Your task to perform on an android device: Check the latest toasters on Target. Image 0: 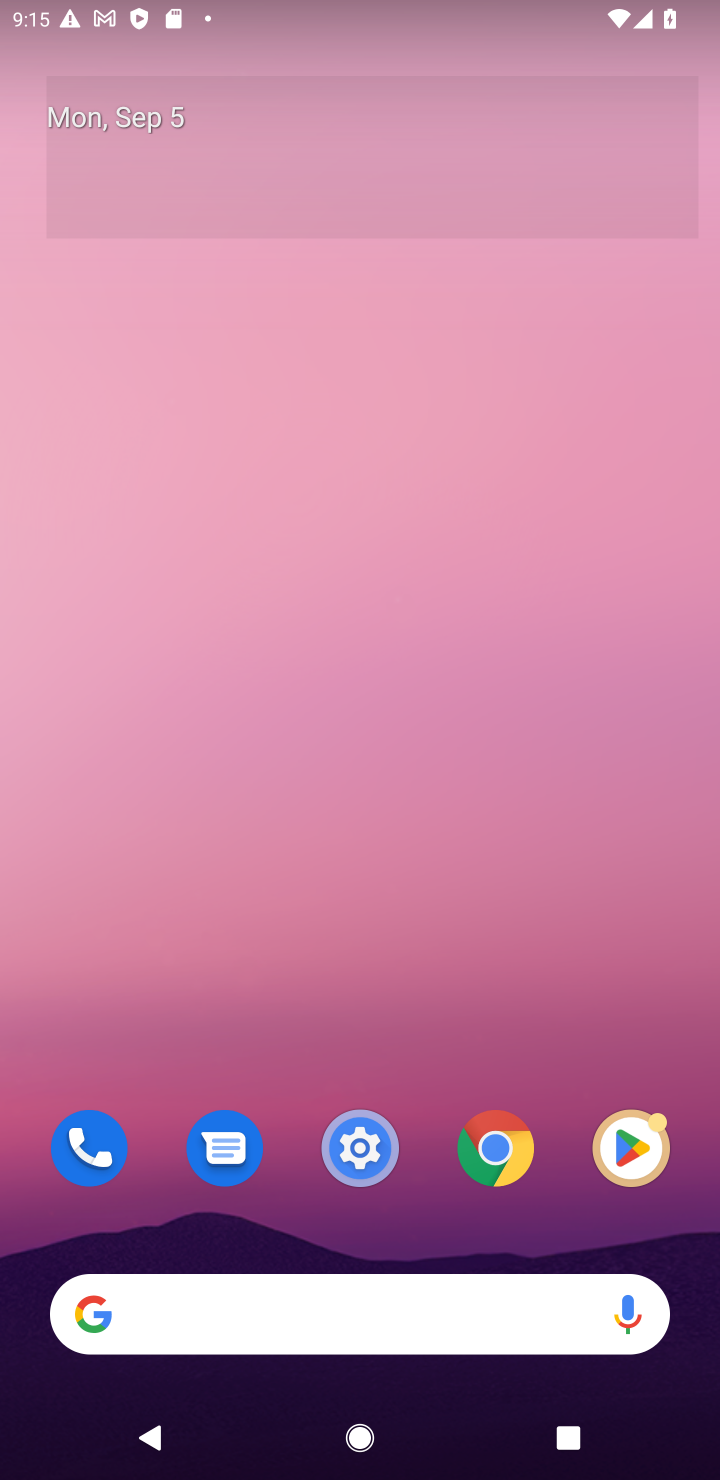
Step 0: click (397, 1296)
Your task to perform on an android device: Check the latest toasters on Target. Image 1: 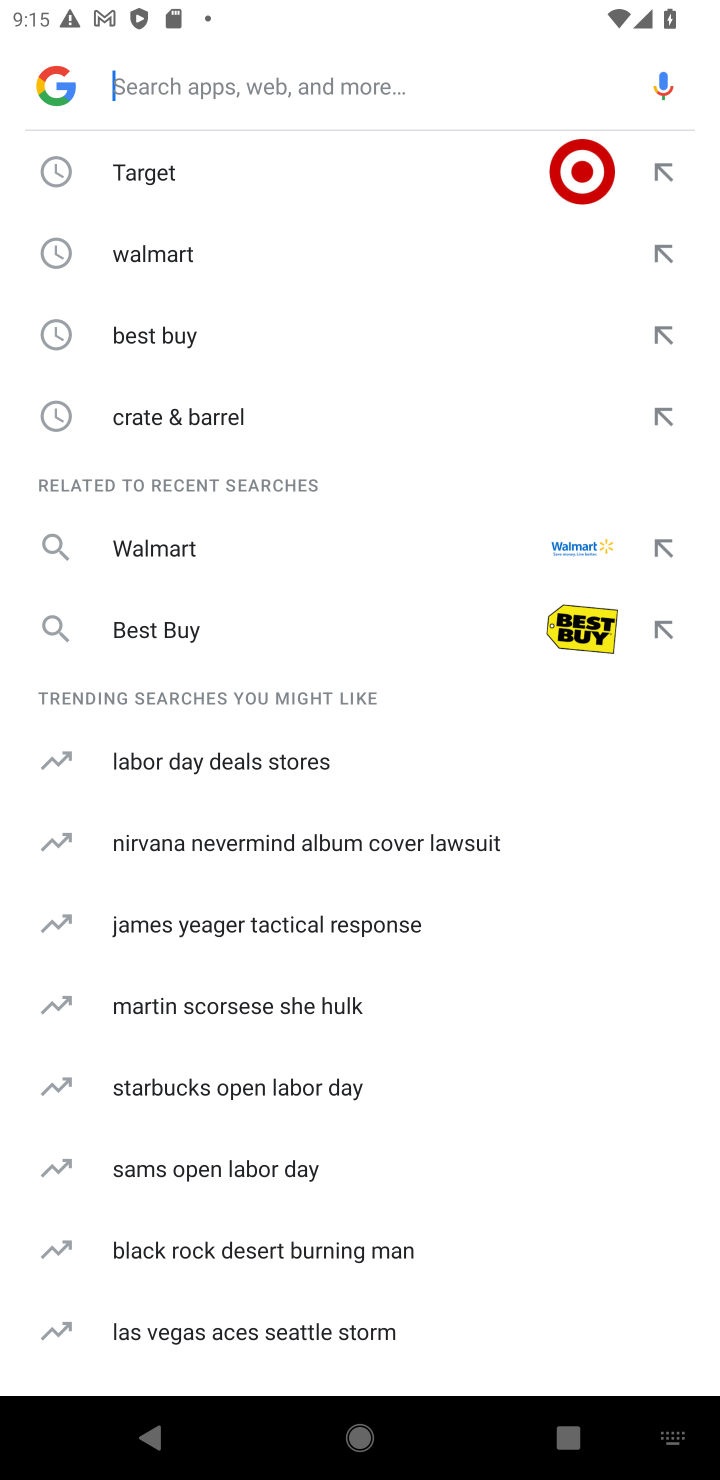
Step 1: click (164, 169)
Your task to perform on an android device: Check the latest toasters on Target. Image 2: 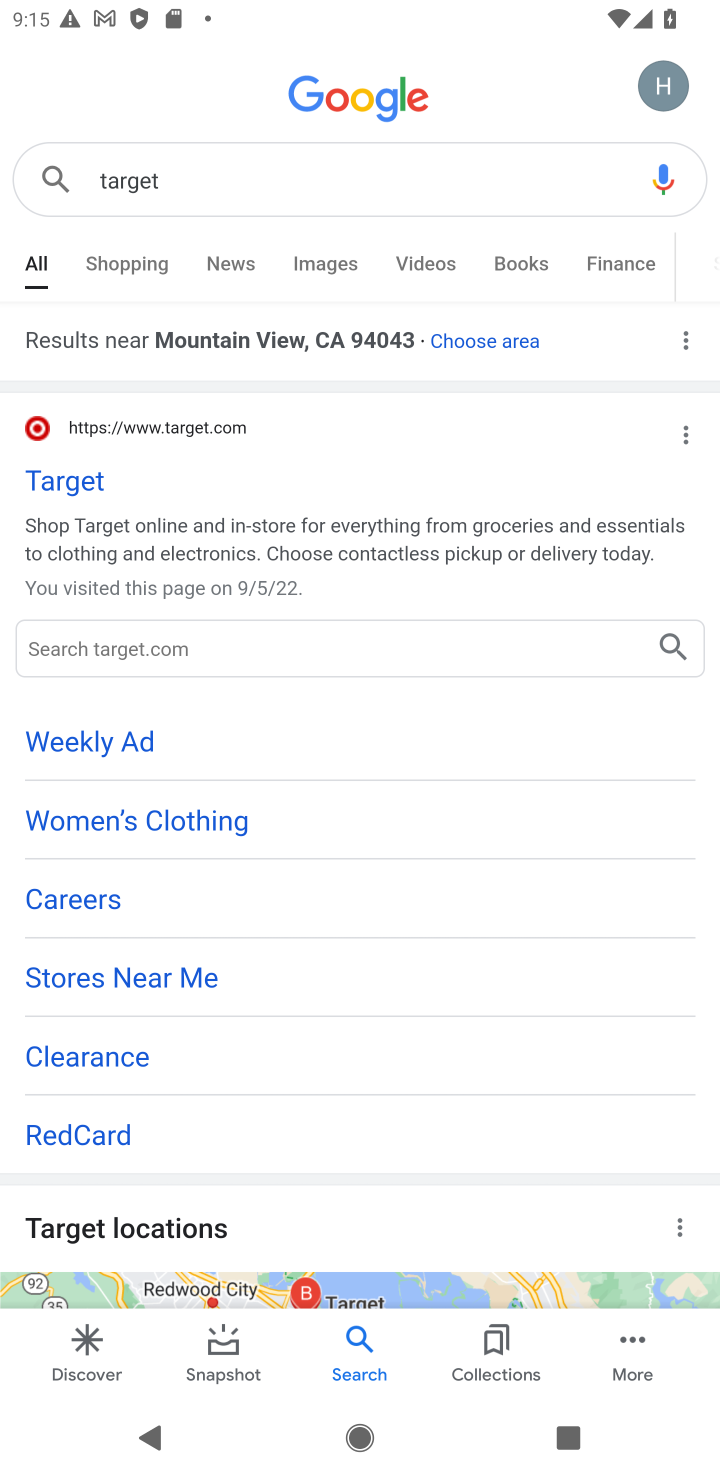
Step 2: click (61, 494)
Your task to perform on an android device: Check the latest toasters on Target. Image 3: 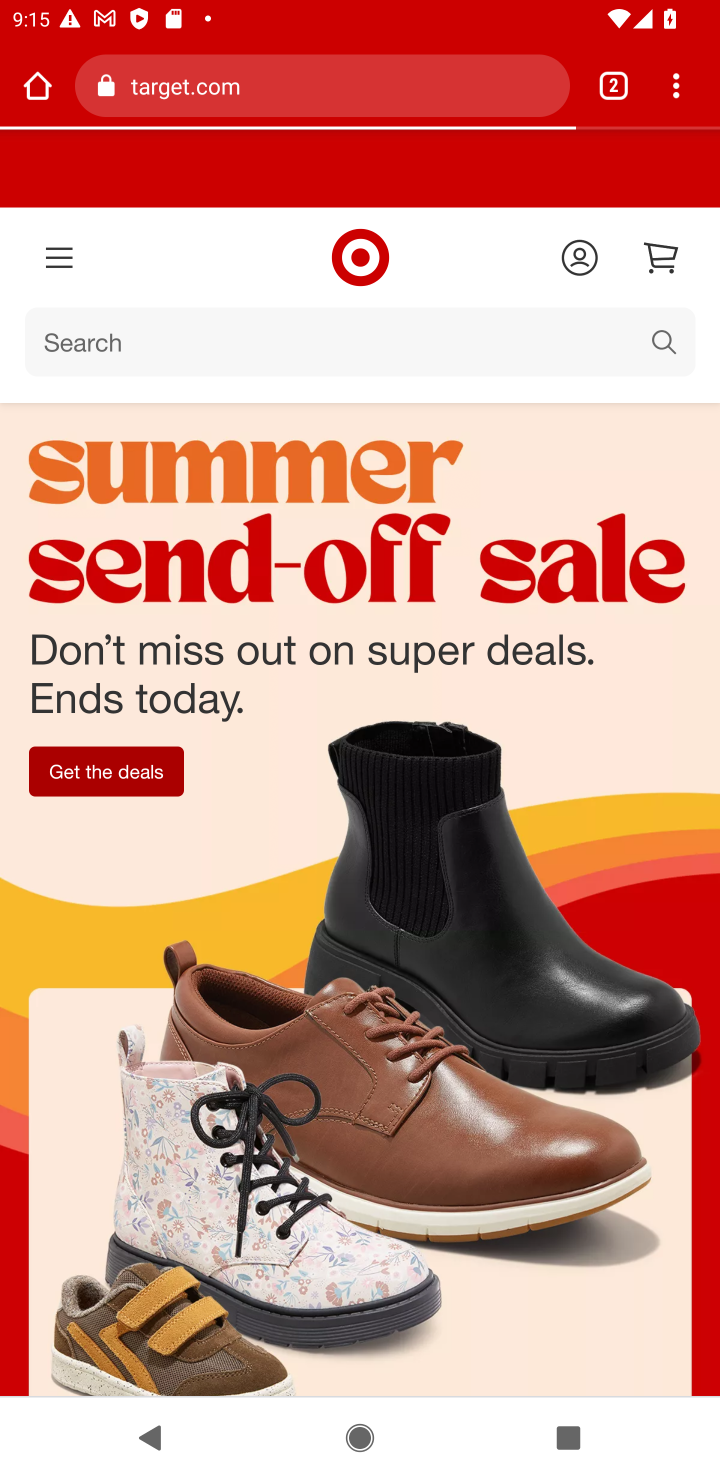
Step 3: click (163, 348)
Your task to perform on an android device: Check the latest toasters on Target. Image 4: 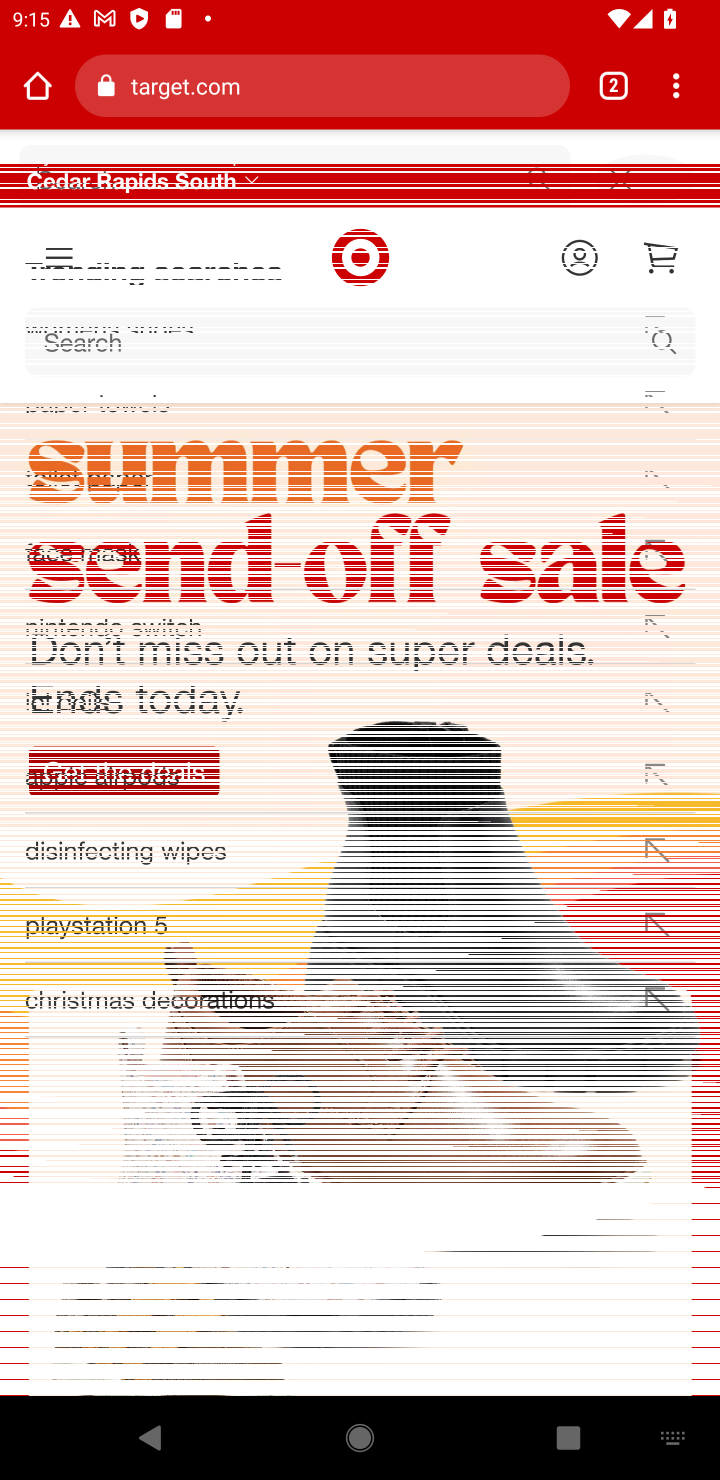
Step 4: type "toasters"
Your task to perform on an android device: Check the latest toasters on Target. Image 5: 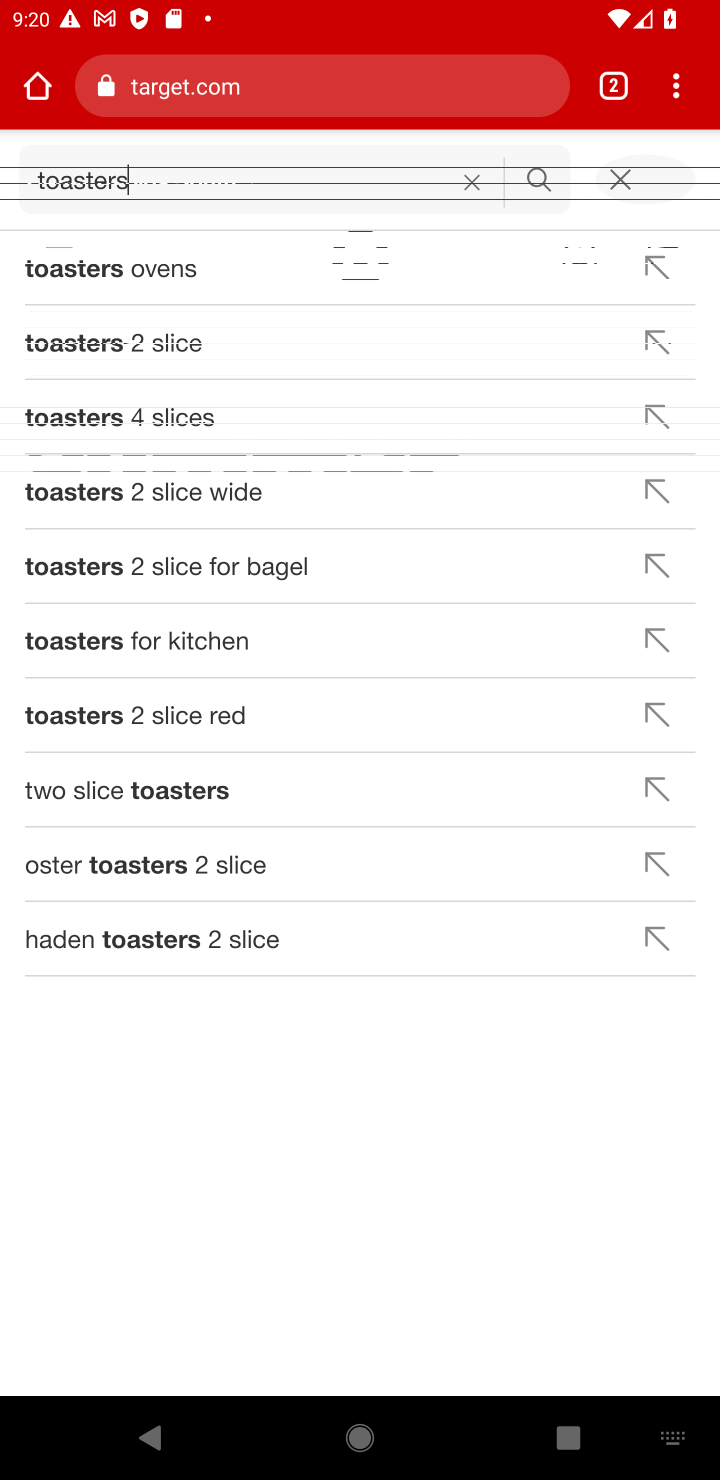
Step 5: task complete